Your task to perform on an android device: Go to eBay Image 0: 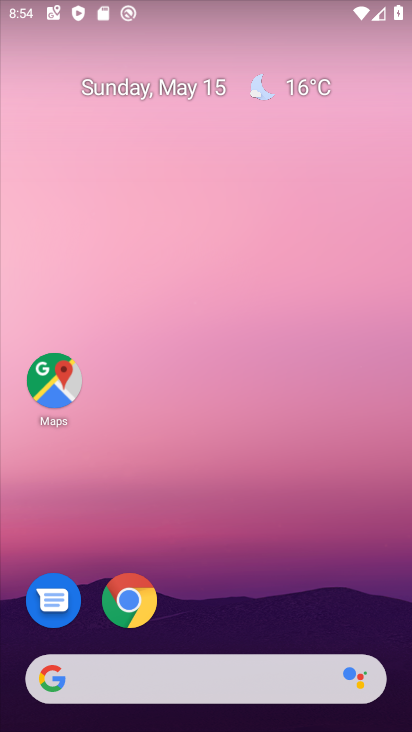
Step 0: drag from (223, 584) to (292, 22)
Your task to perform on an android device: Go to eBay Image 1: 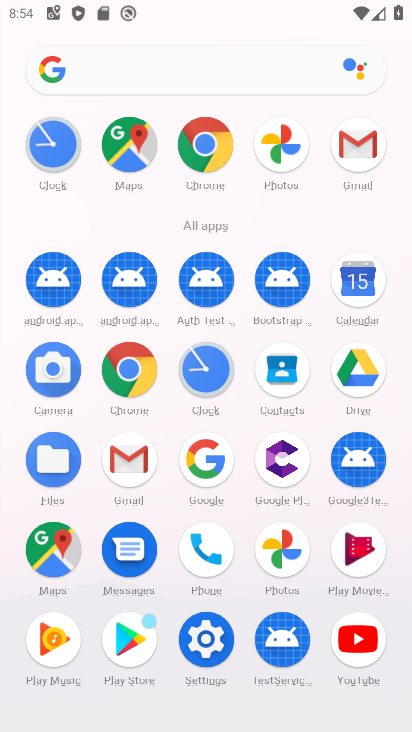
Step 1: click (202, 451)
Your task to perform on an android device: Go to eBay Image 2: 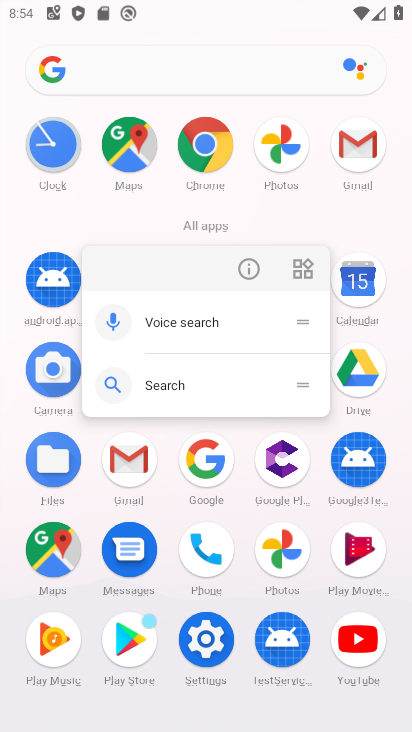
Step 2: click (206, 465)
Your task to perform on an android device: Go to eBay Image 3: 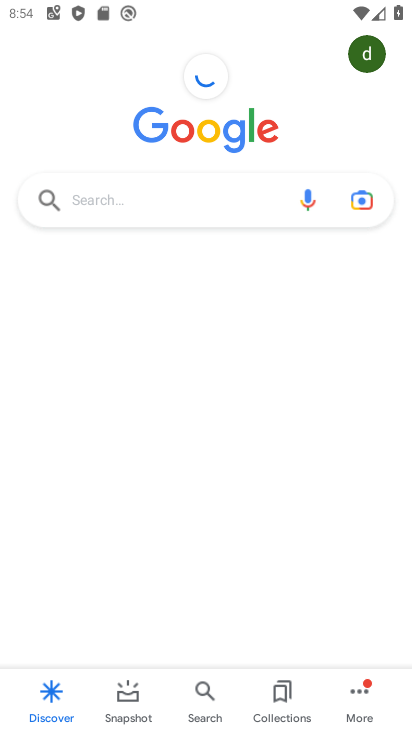
Step 3: click (142, 197)
Your task to perform on an android device: Go to eBay Image 4: 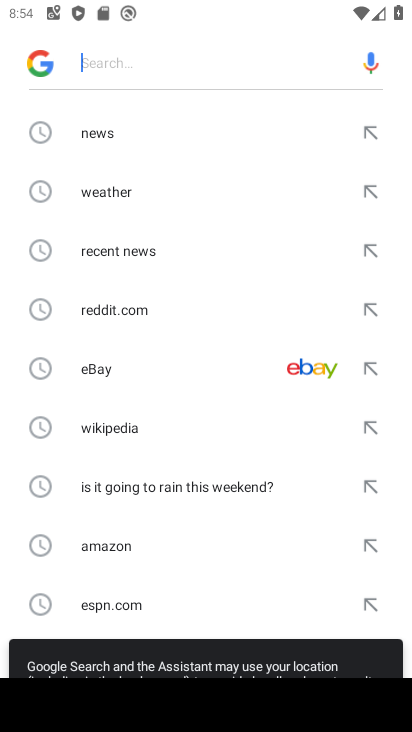
Step 4: click (96, 370)
Your task to perform on an android device: Go to eBay Image 5: 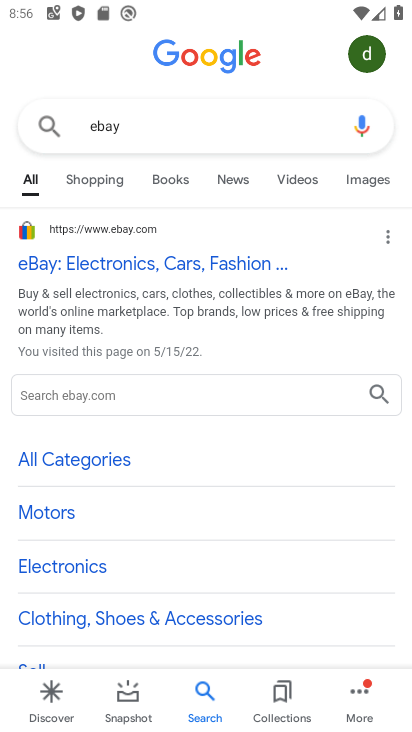
Step 5: task complete